Your task to perform on an android device: Is it going to rain tomorrow? Image 0: 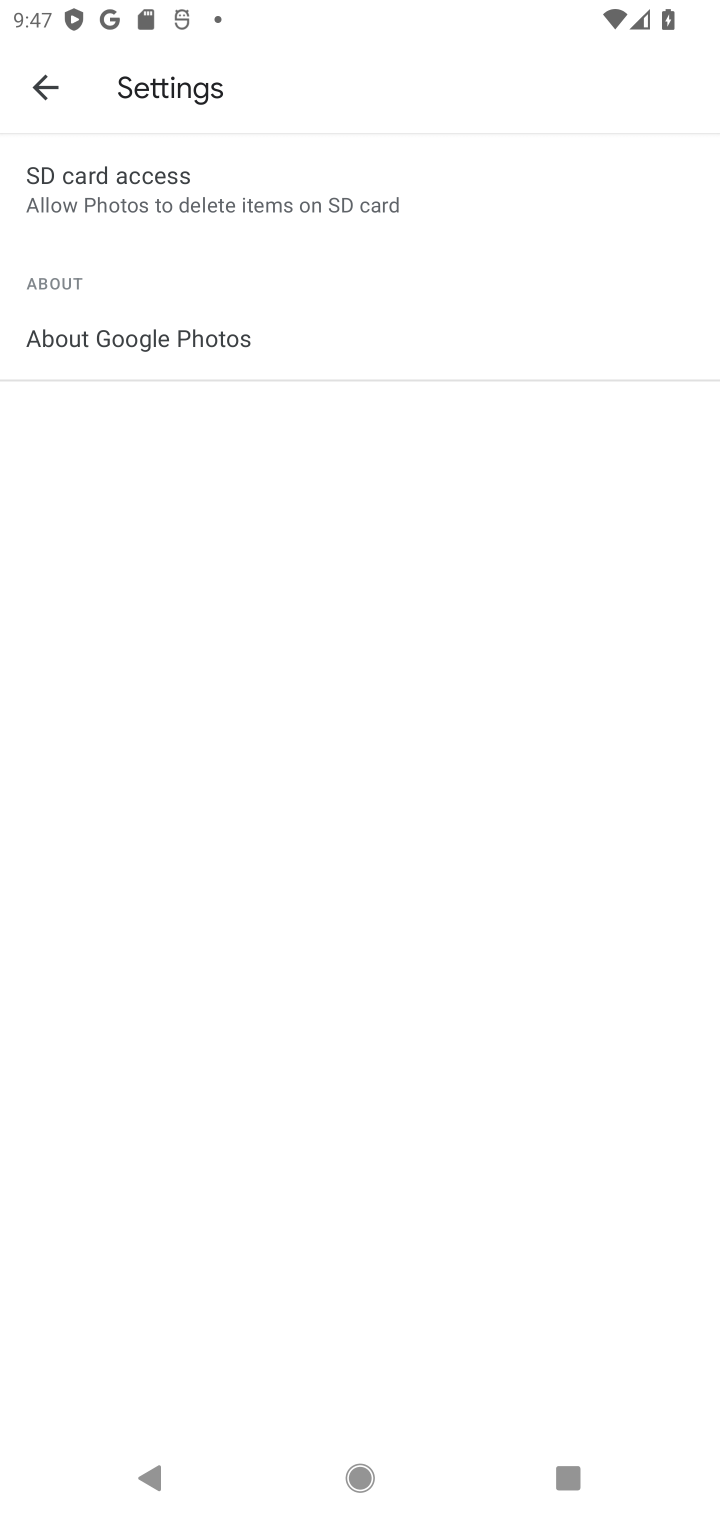
Step 0: press home button
Your task to perform on an android device: Is it going to rain tomorrow? Image 1: 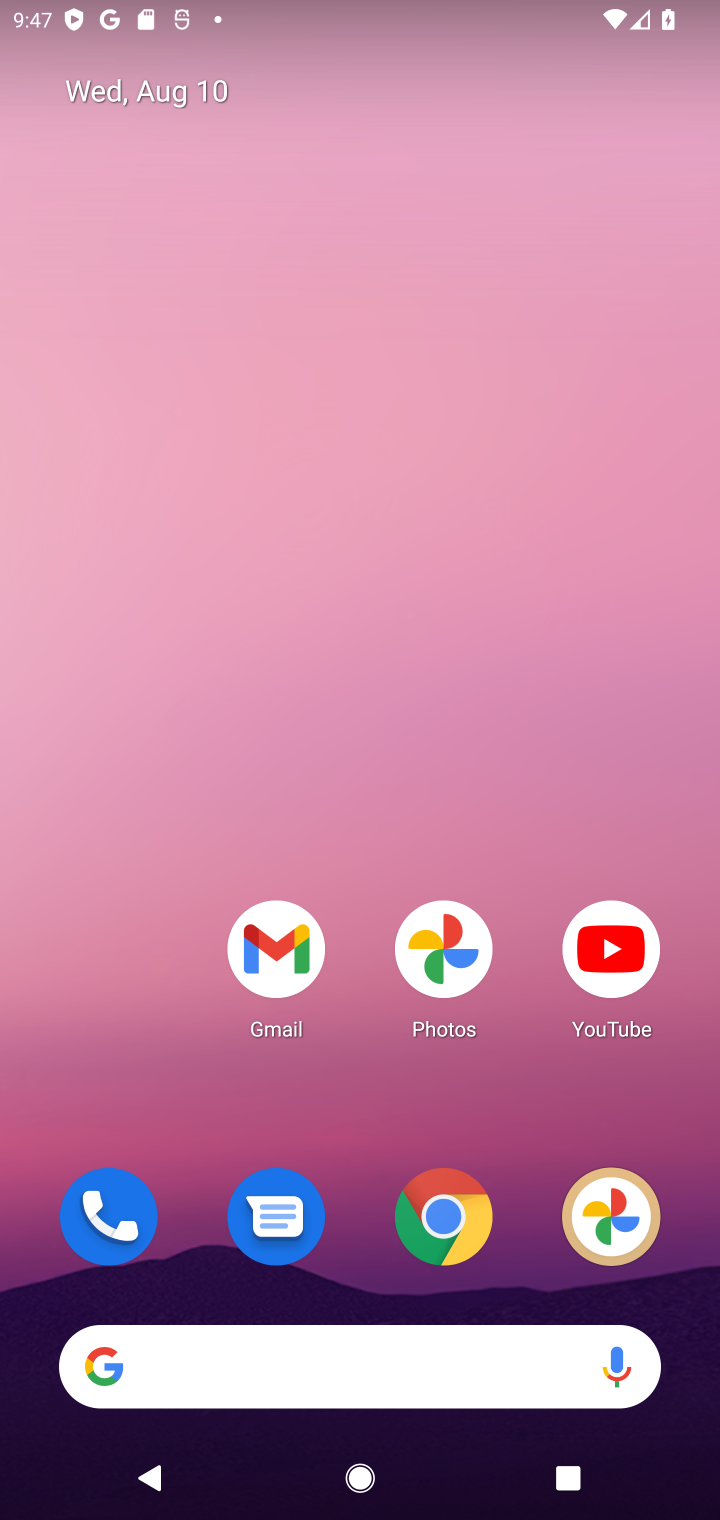
Step 1: click (334, 1383)
Your task to perform on an android device: Is it going to rain tomorrow? Image 2: 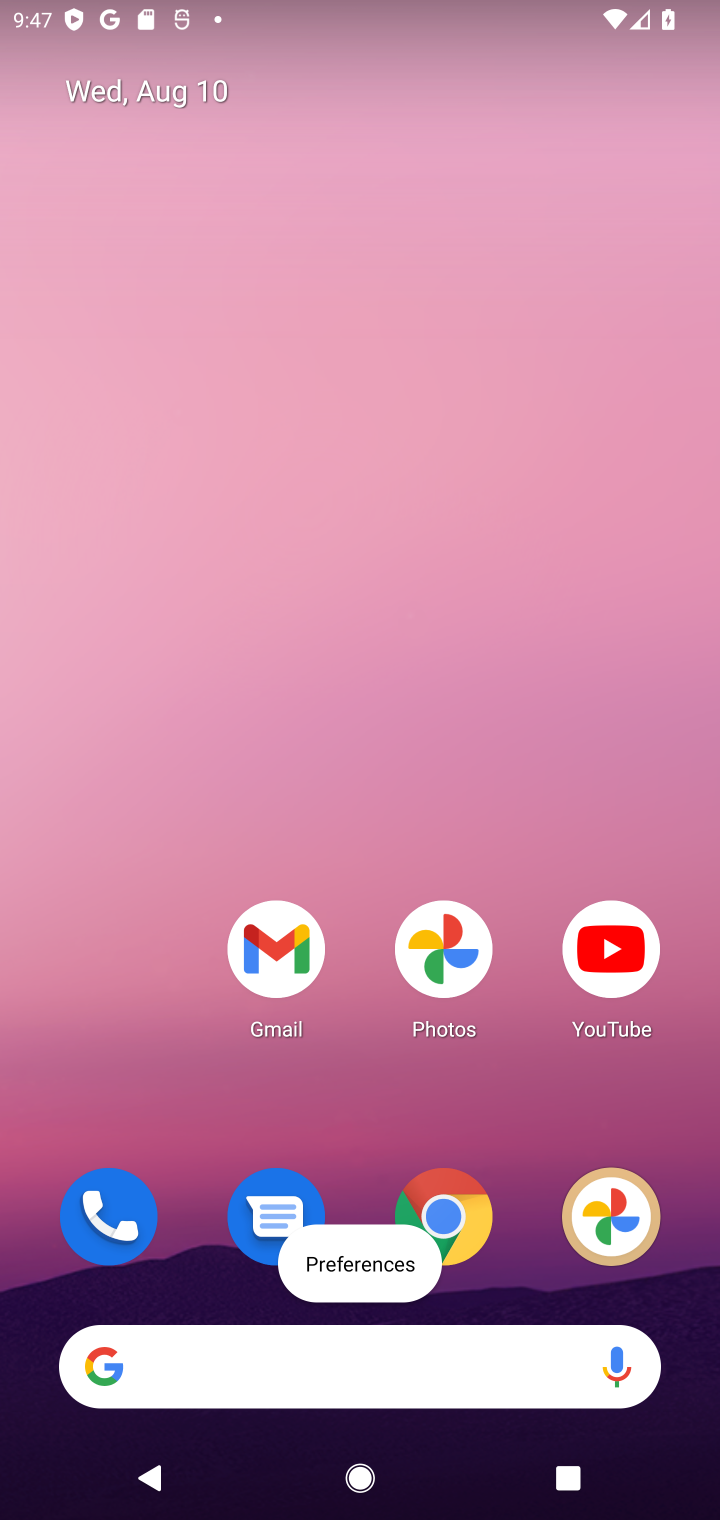
Step 2: click (354, 1307)
Your task to perform on an android device: Is it going to rain tomorrow? Image 3: 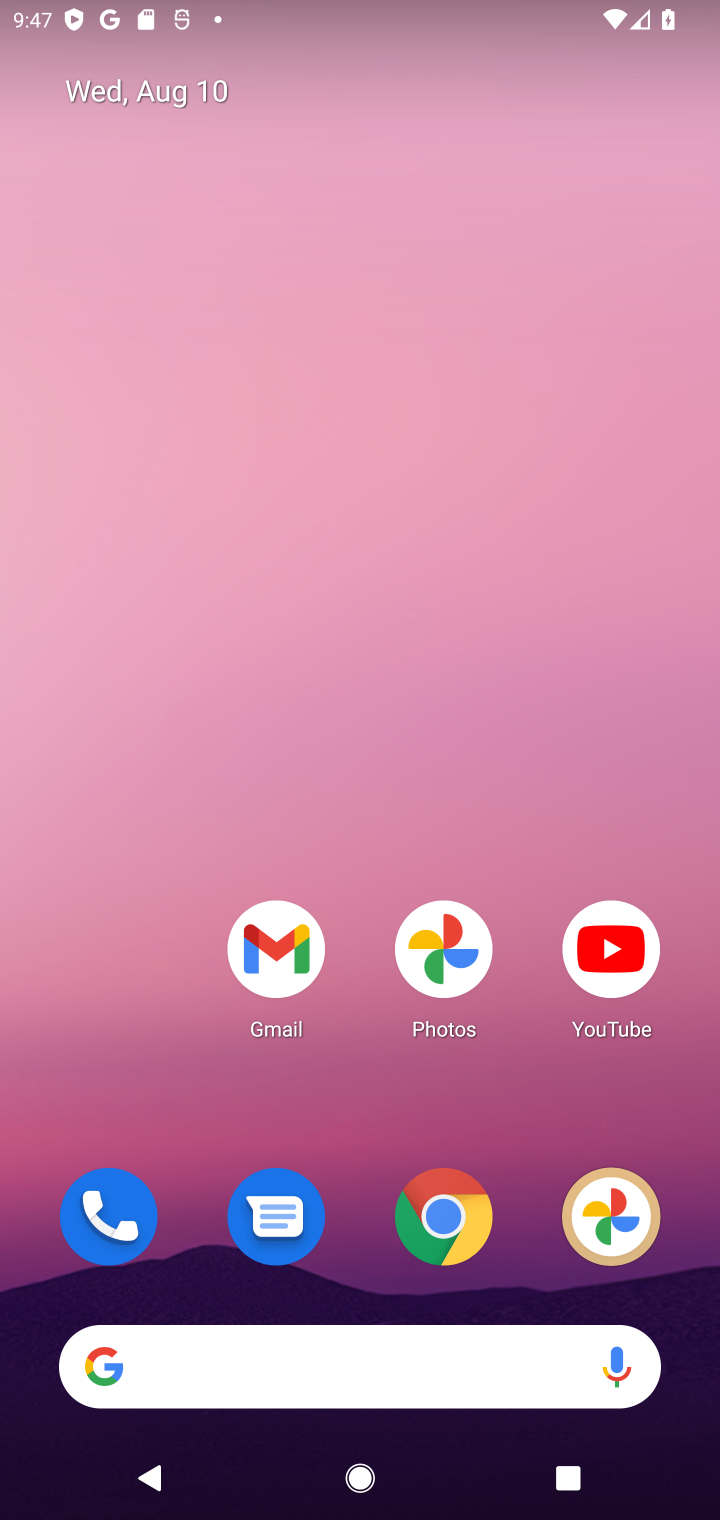
Step 3: click (332, 1358)
Your task to perform on an android device: Is it going to rain tomorrow? Image 4: 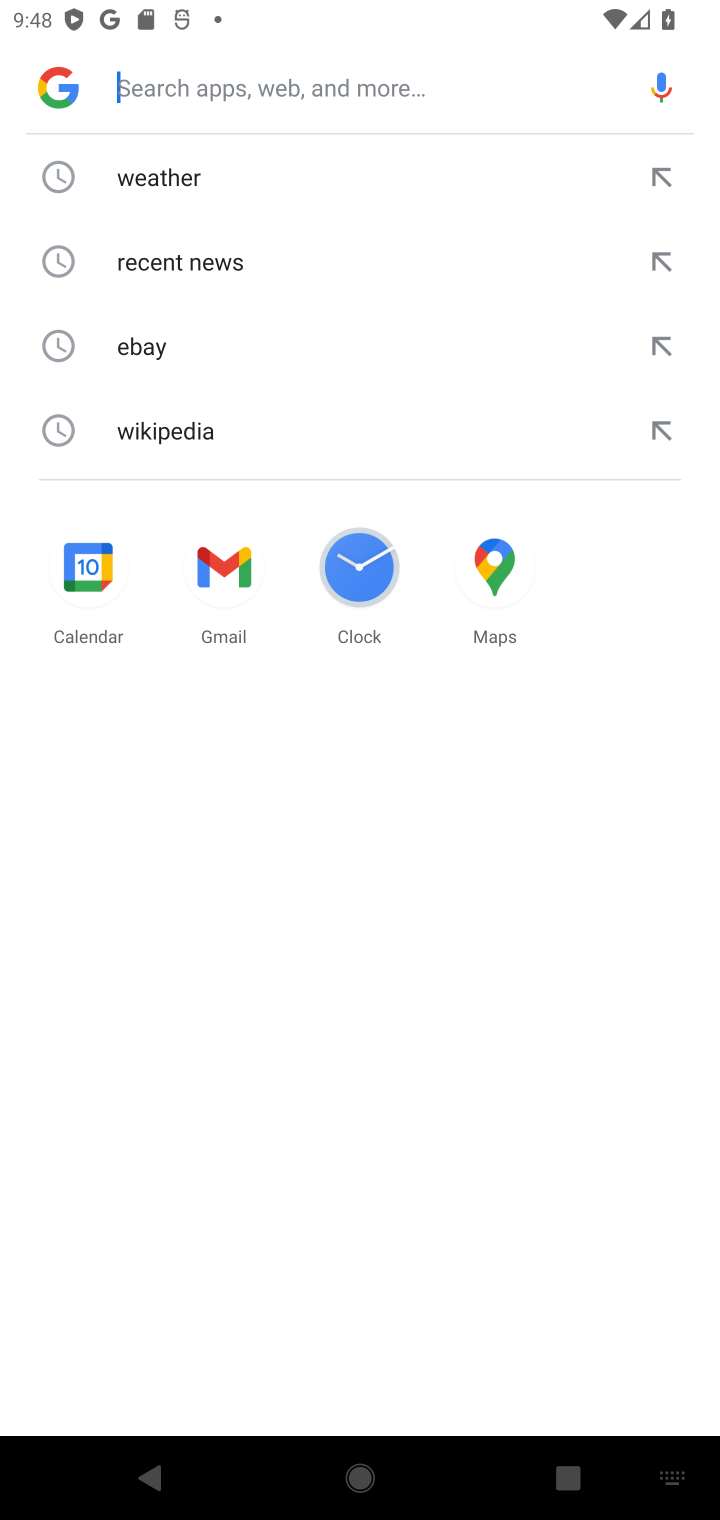
Step 4: click (247, 189)
Your task to perform on an android device: Is it going to rain tomorrow? Image 5: 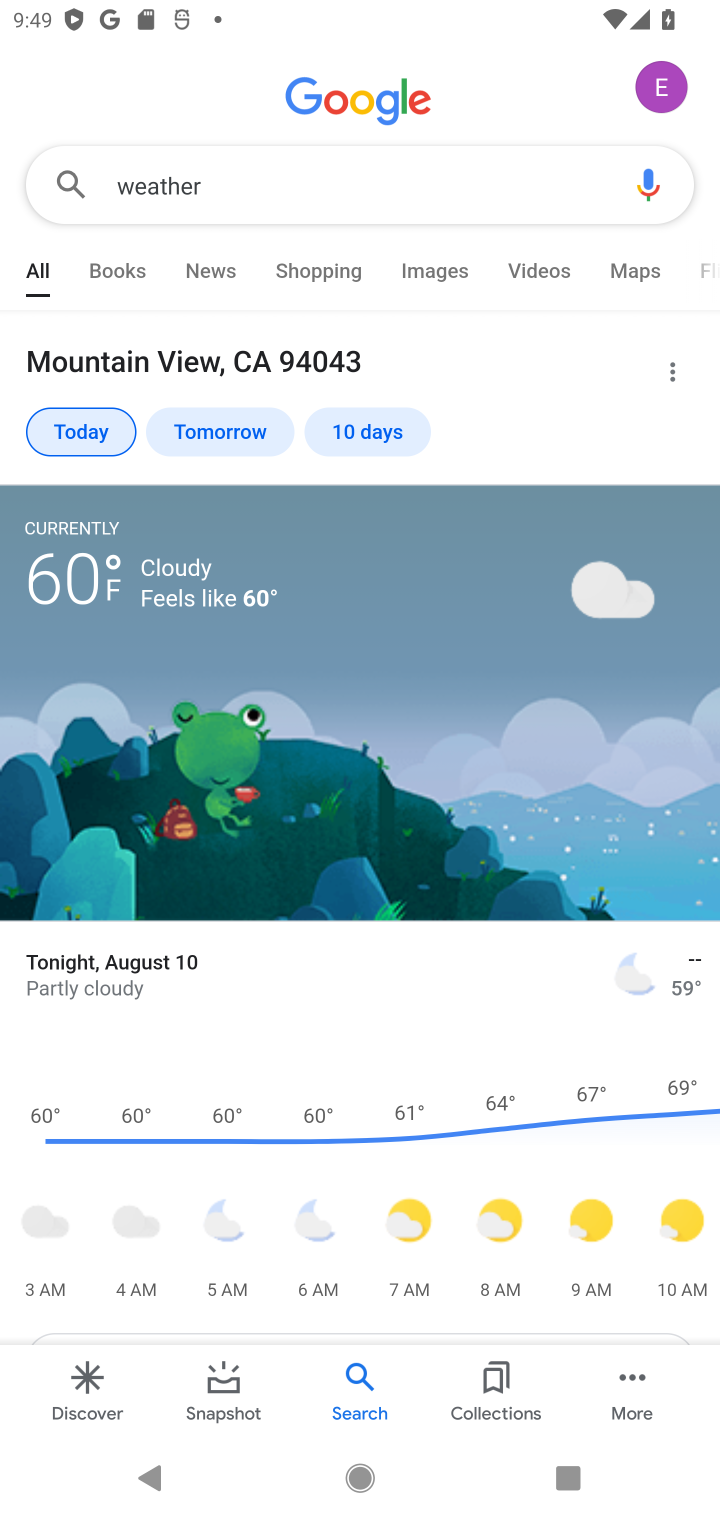
Step 5: click (248, 420)
Your task to perform on an android device: Is it going to rain tomorrow? Image 6: 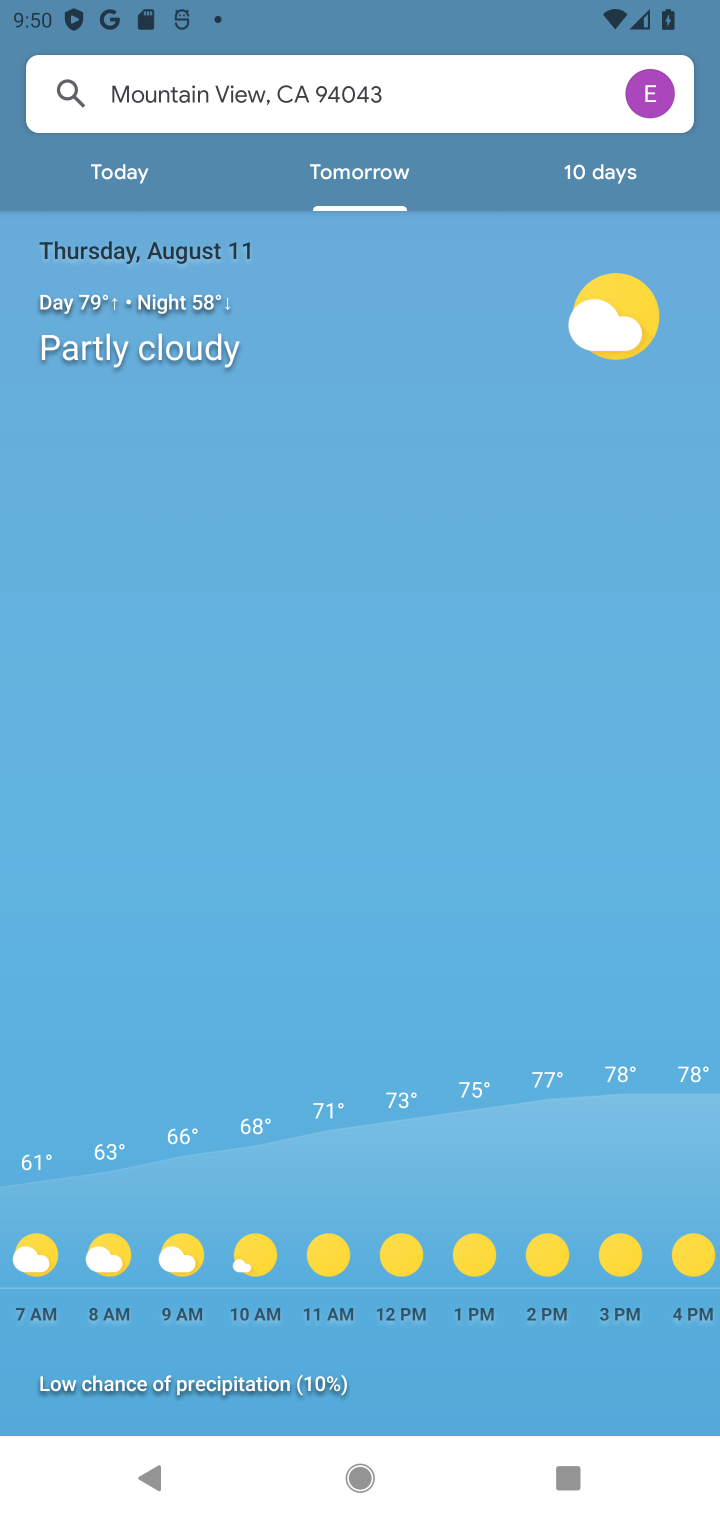
Step 6: task complete